Your task to perform on an android device: Show me popular videos on Youtube Image 0: 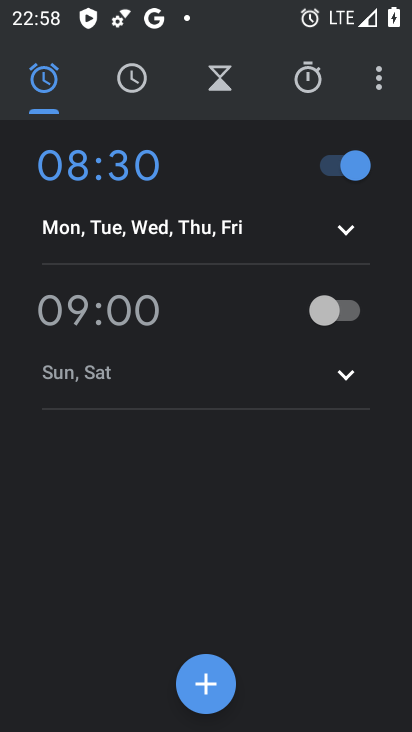
Step 0: press back button
Your task to perform on an android device: Show me popular videos on Youtube Image 1: 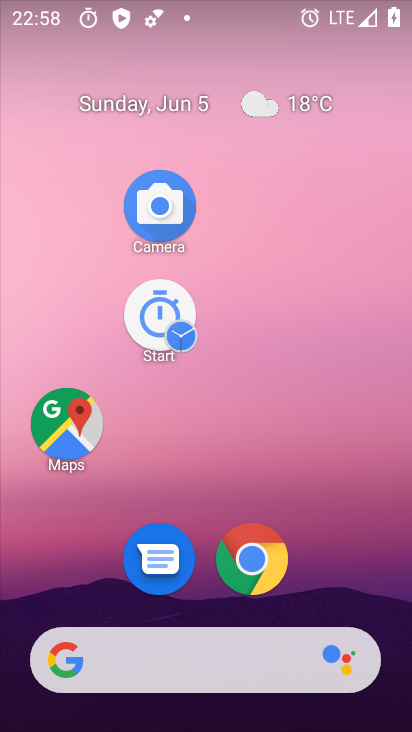
Step 1: drag from (224, 700) to (91, 16)
Your task to perform on an android device: Show me popular videos on Youtube Image 2: 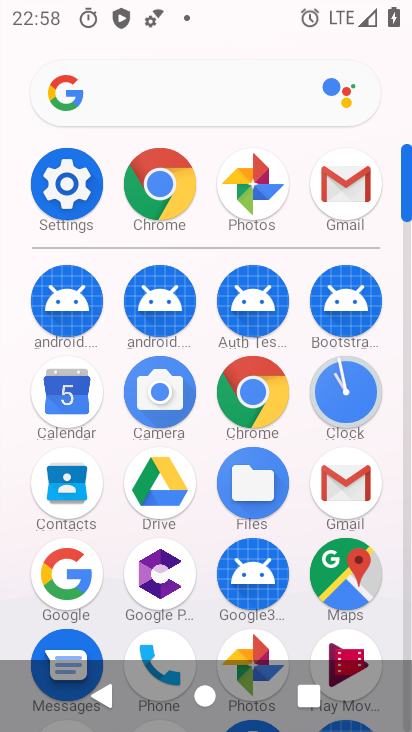
Step 2: drag from (308, 514) to (306, 198)
Your task to perform on an android device: Show me popular videos on Youtube Image 3: 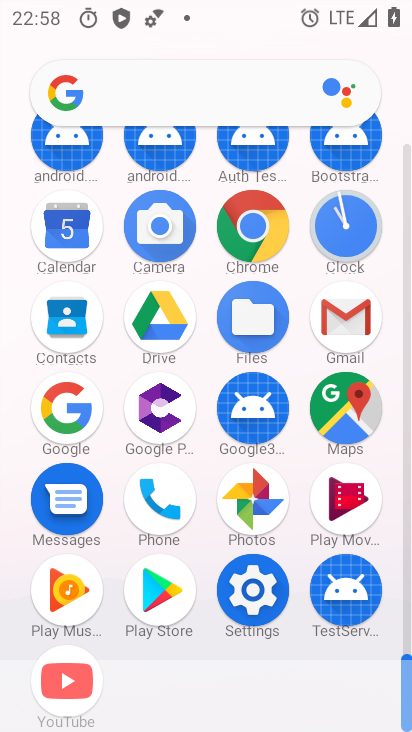
Step 3: drag from (80, 564) to (39, 178)
Your task to perform on an android device: Show me popular videos on Youtube Image 4: 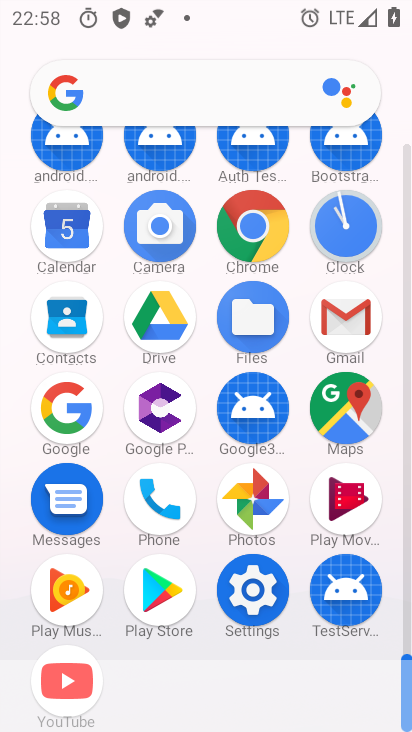
Step 4: click (75, 648)
Your task to perform on an android device: Show me popular videos on Youtube Image 5: 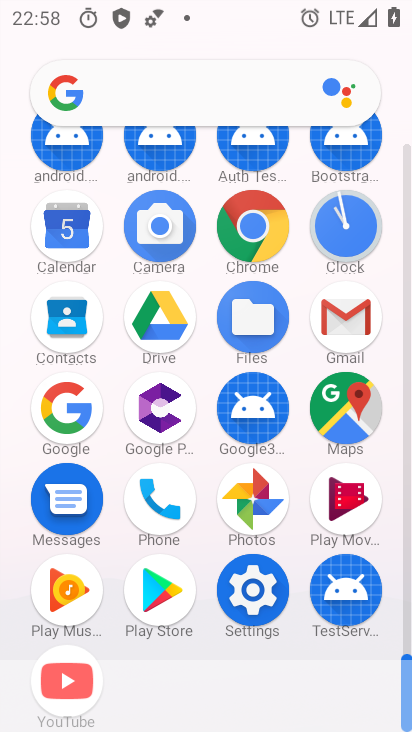
Step 5: click (75, 648)
Your task to perform on an android device: Show me popular videos on Youtube Image 6: 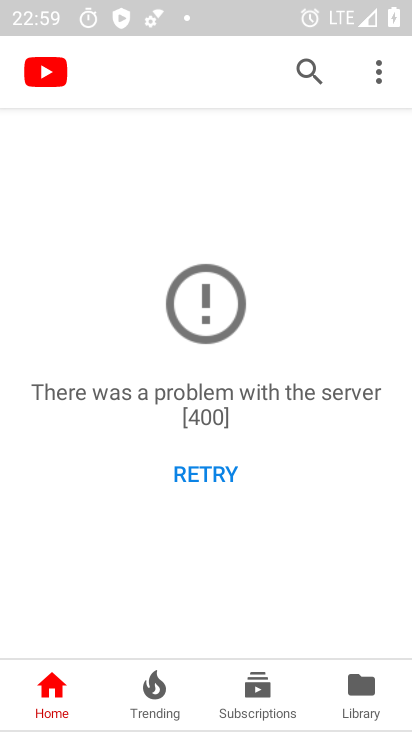
Step 6: task complete